Your task to perform on an android device: toggle notification dots Image 0: 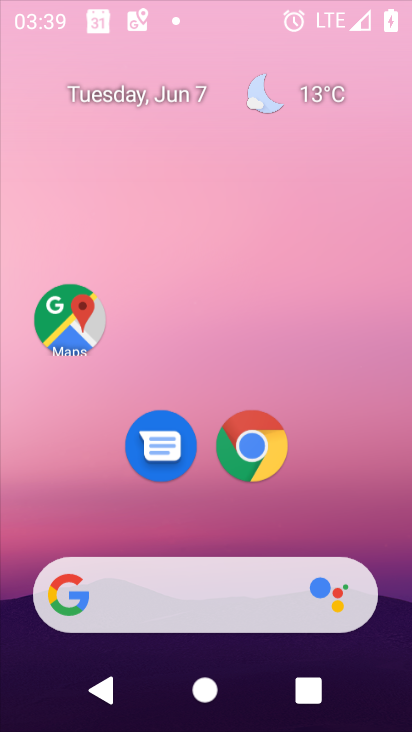
Step 0: click (86, 307)
Your task to perform on an android device: toggle notification dots Image 1: 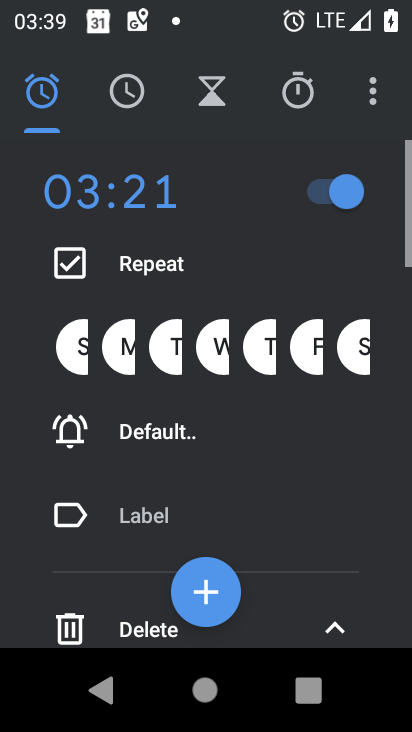
Step 1: press home button
Your task to perform on an android device: toggle notification dots Image 2: 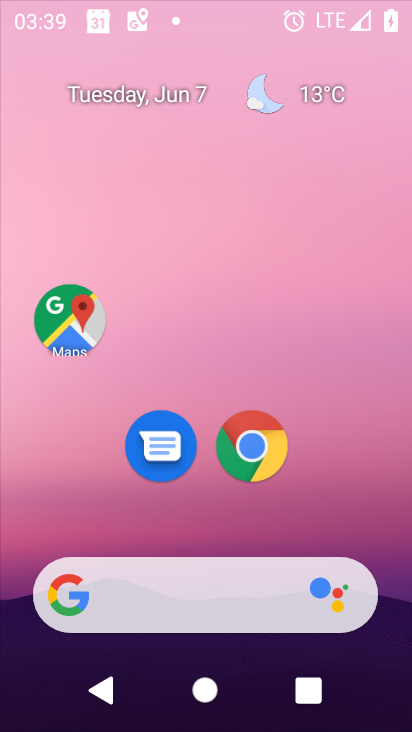
Step 2: drag from (265, 690) to (314, 2)
Your task to perform on an android device: toggle notification dots Image 3: 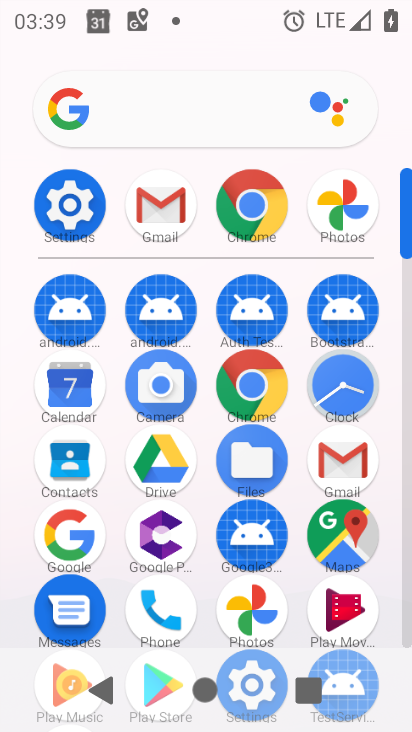
Step 3: click (57, 206)
Your task to perform on an android device: toggle notification dots Image 4: 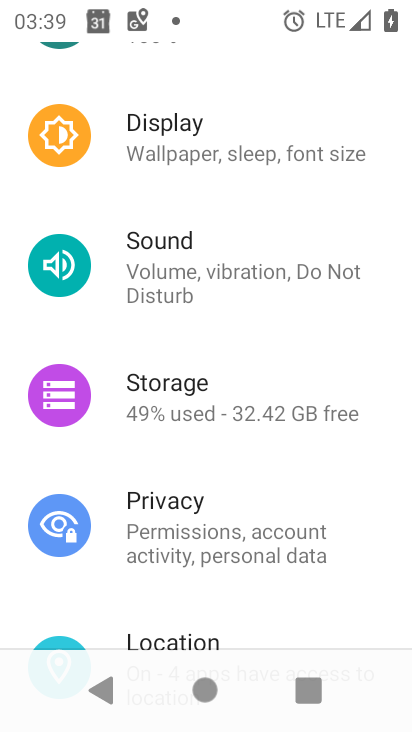
Step 4: drag from (320, 186) to (352, 626)
Your task to perform on an android device: toggle notification dots Image 5: 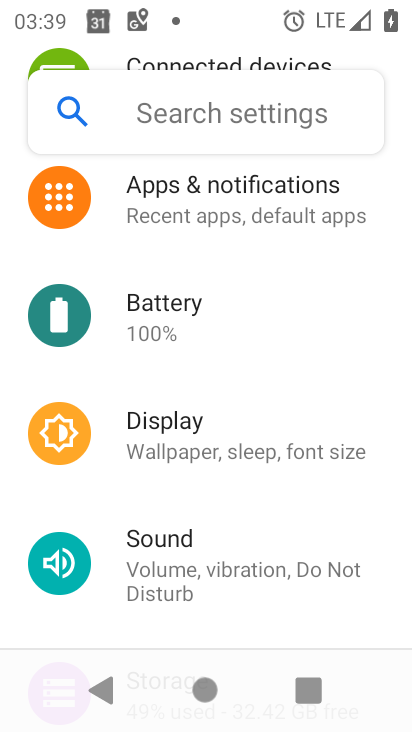
Step 5: click (247, 215)
Your task to perform on an android device: toggle notification dots Image 6: 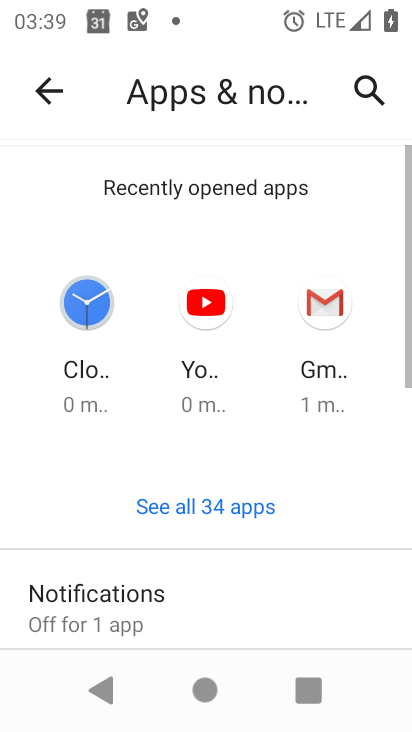
Step 6: click (118, 591)
Your task to perform on an android device: toggle notification dots Image 7: 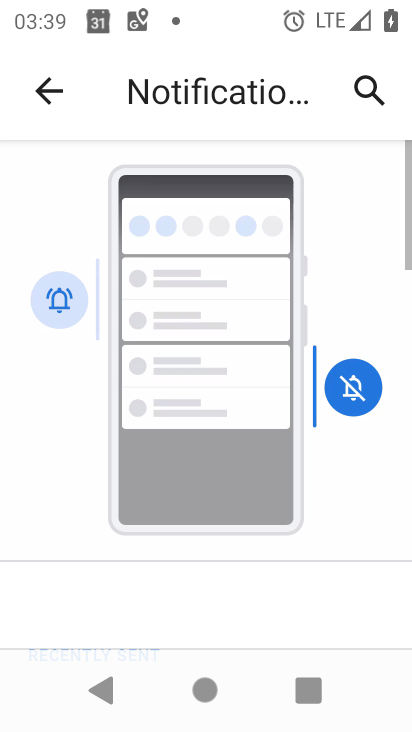
Step 7: drag from (245, 608) to (301, 27)
Your task to perform on an android device: toggle notification dots Image 8: 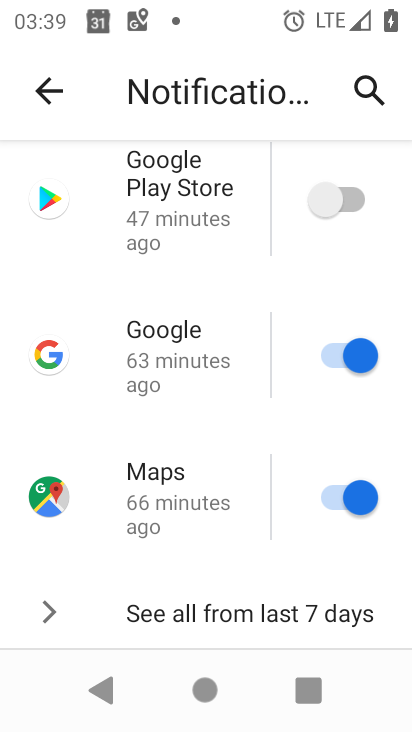
Step 8: drag from (294, 525) to (296, 0)
Your task to perform on an android device: toggle notification dots Image 9: 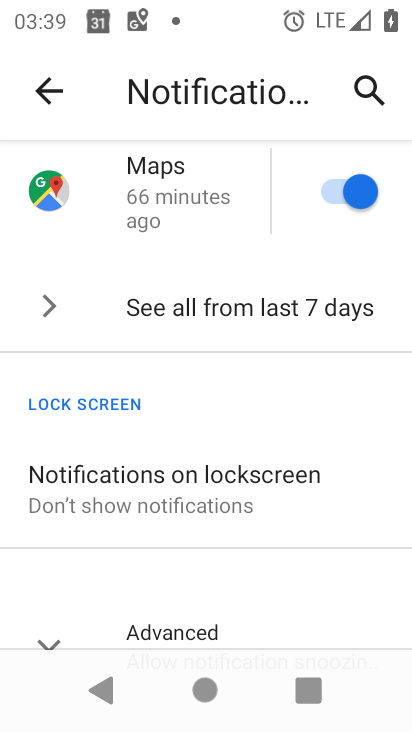
Step 9: click (195, 642)
Your task to perform on an android device: toggle notification dots Image 10: 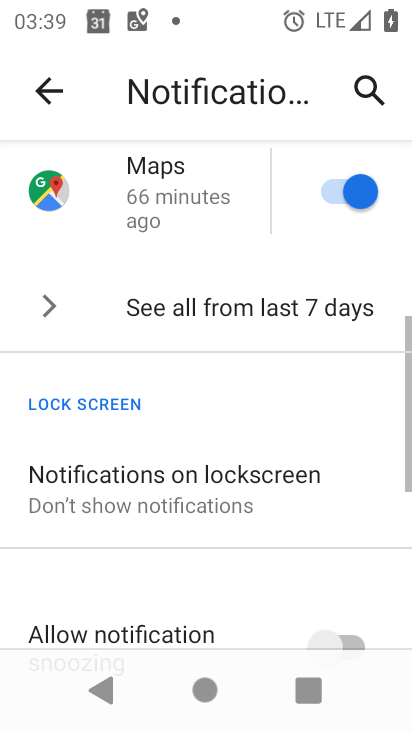
Step 10: drag from (293, 547) to (366, 20)
Your task to perform on an android device: toggle notification dots Image 11: 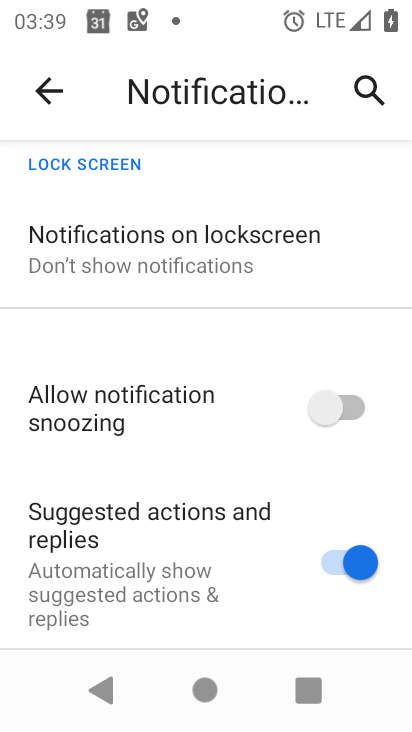
Step 11: drag from (237, 608) to (250, 31)
Your task to perform on an android device: toggle notification dots Image 12: 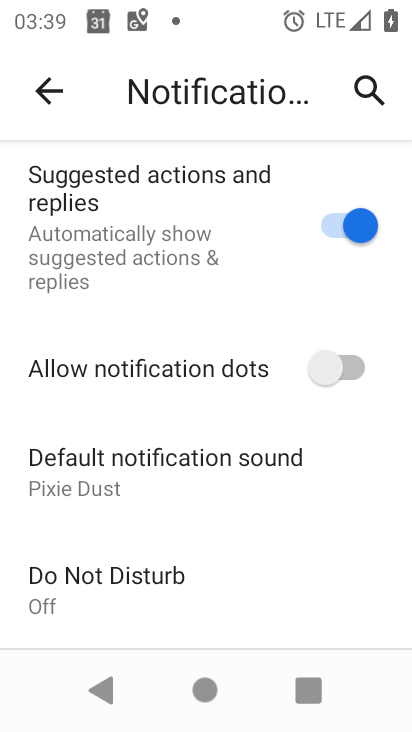
Step 12: click (355, 360)
Your task to perform on an android device: toggle notification dots Image 13: 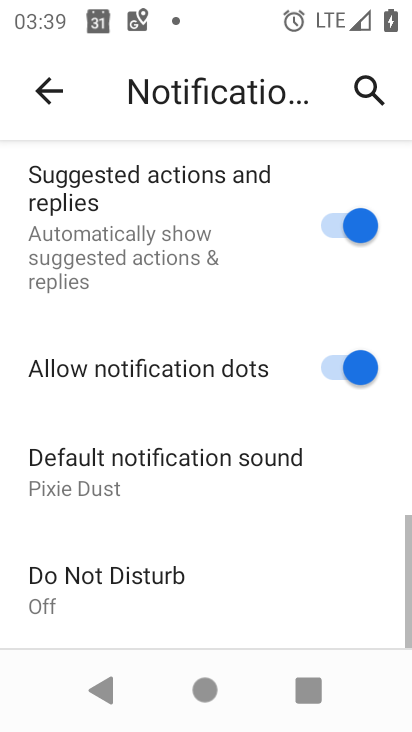
Step 13: task complete